Your task to perform on an android device: Open privacy settings Image 0: 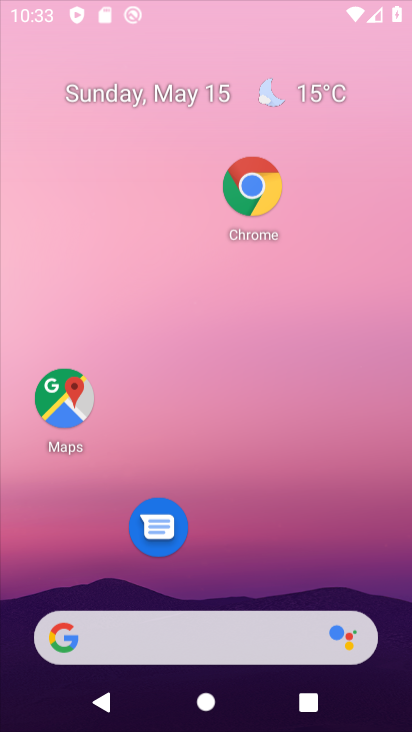
Step 0: drag from (306, 572) to (347, 6)
Your task to perform on an android device: Open privacy settings Image 1: 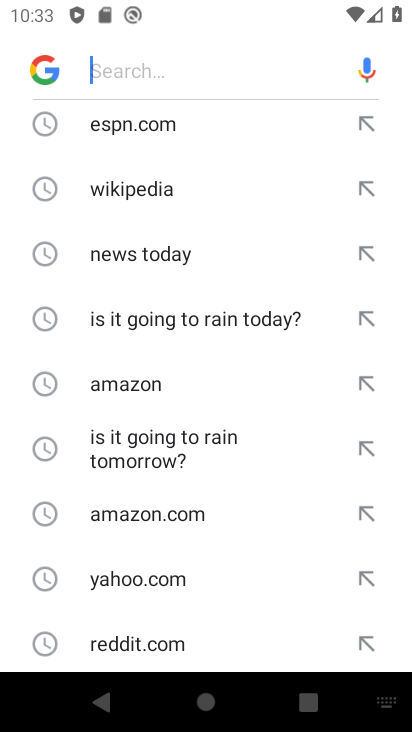
Step 1: press back button
Your task to perform on an android device: Open privacy settings Image 2: 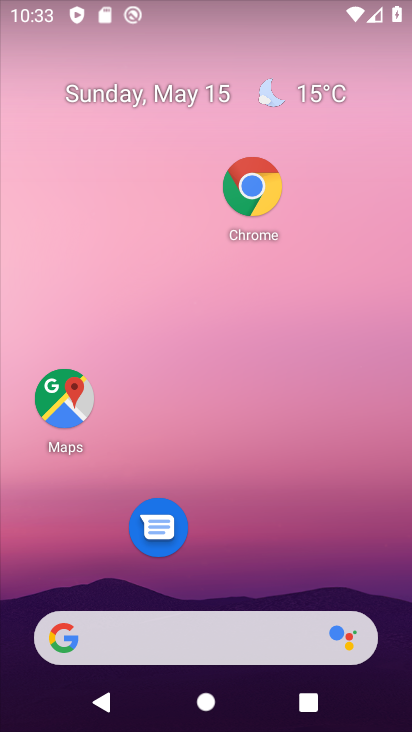
Step 2: click (243, 191)
Your task to perform on an android device: Open privacy settings Image 3: 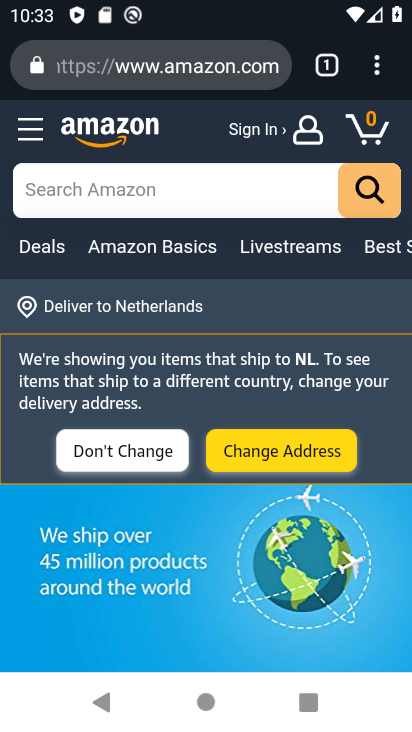
Step 3: click (380, 68)
Your task to perform on an android device: Open privacy settings Image 4: 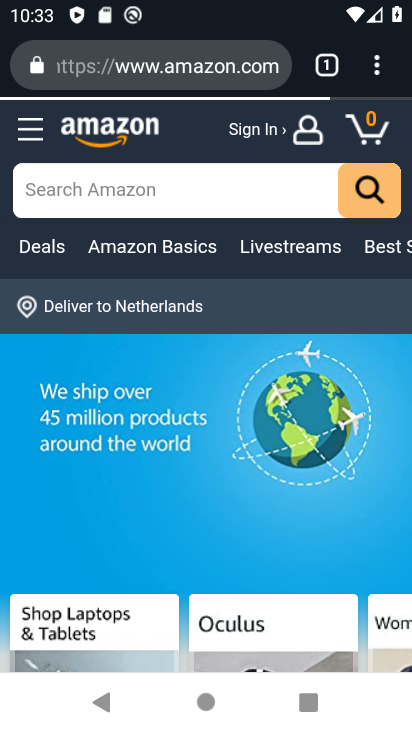
Step 4: press home button
Your task to perform on an android device: Open privacy settings Image 5: 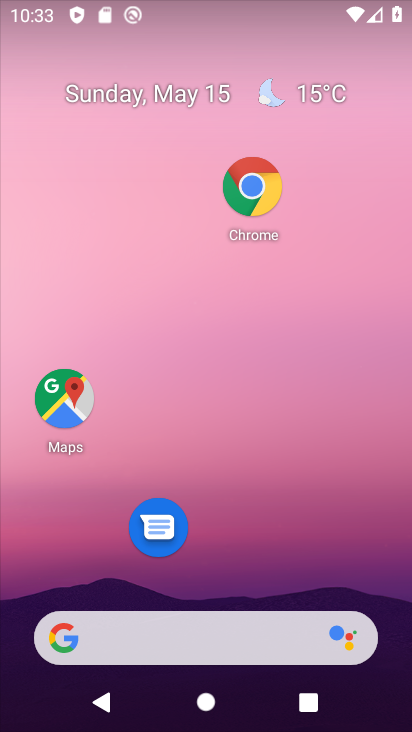
Step 5: drag from (244, 581) to (261, 5)
Your task to perform on an android device: Open privacy settings Image 6: 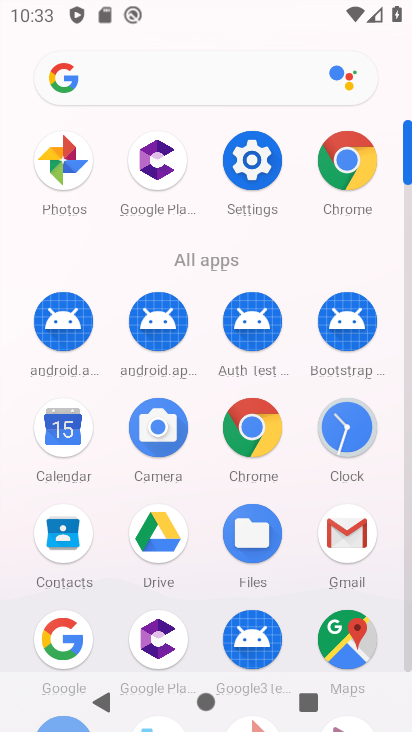
Step 6: click (255, 185)
Your task to perform on an android device: Open privacy settings Image 7: 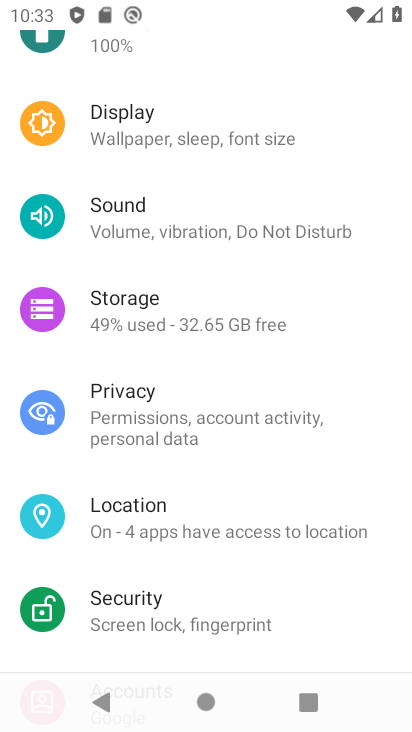
Step 7: click (143, 422)
Your task to perform on an android device: Open privacy settings Image 8: 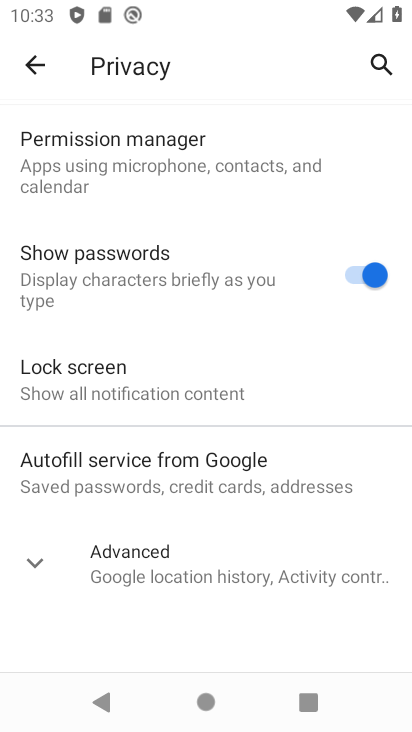
Step 8: task complete